Your task to perform on an android device: Go to eBay Image 0: 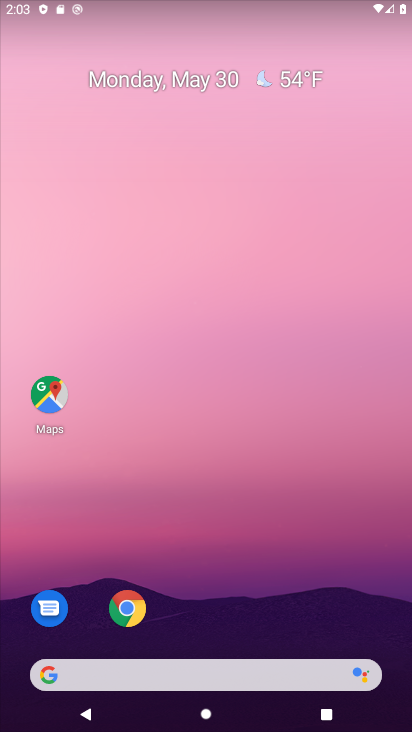
Step 0: drag from (292, 590) to (214, 5)
Your task to perform on an android device: Go to eBay Image 1: 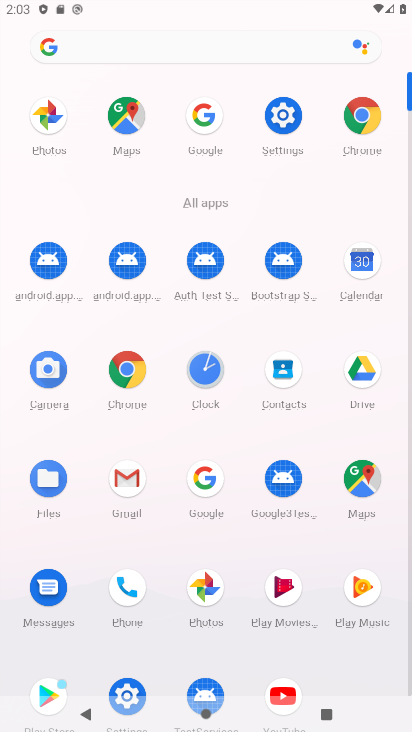
Step 1: click (132, 377)
Your task to perform on an android device: Go to eBay Image 2: 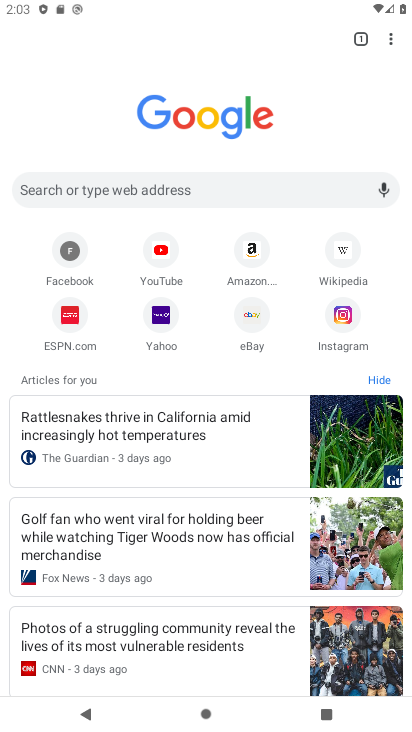
Step 2: click (260, 311)
Your task to perform on an android device: Go to eBay Image 3: 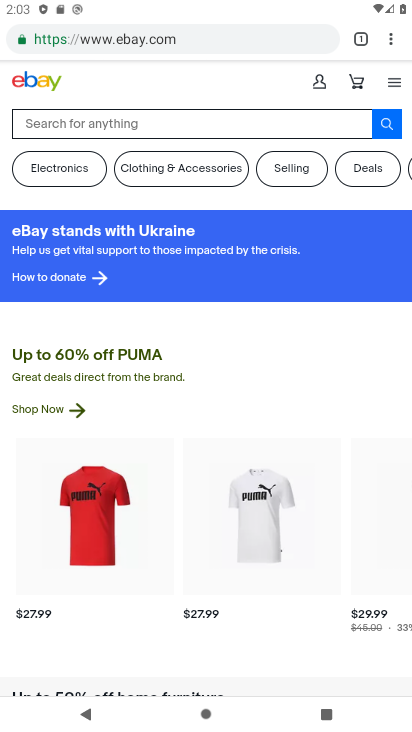
Step 3: task complete